Your task to perform on an android device: delete location history Image 0: 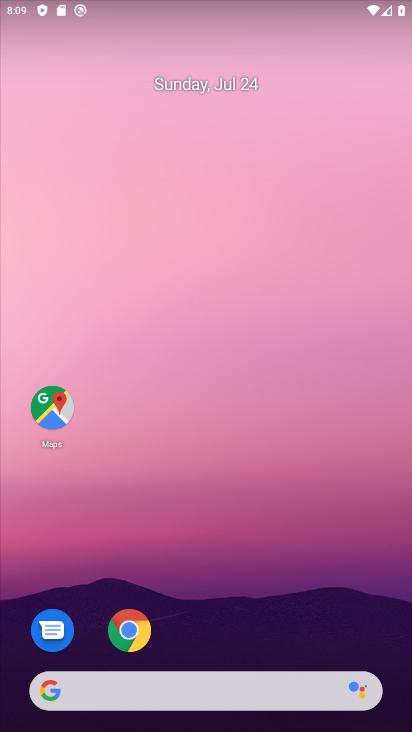
Step 0: drag from (223, 643) to (208, 25)
Your task to perform on an android device: delete location history Image 1: 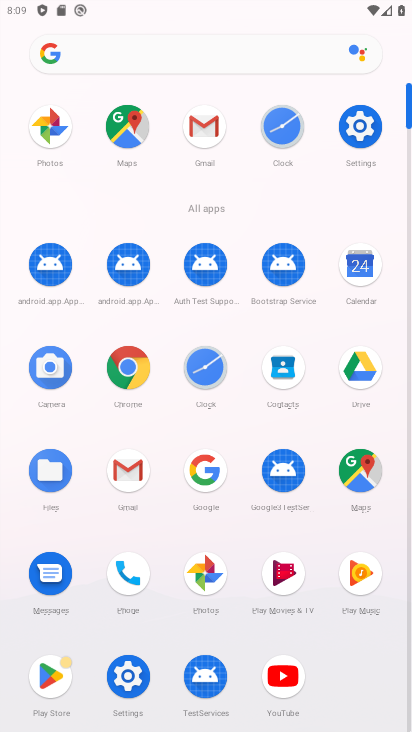
Step 1: click (359, 460)
Your task to perform on an android device: delete location history Image 2: 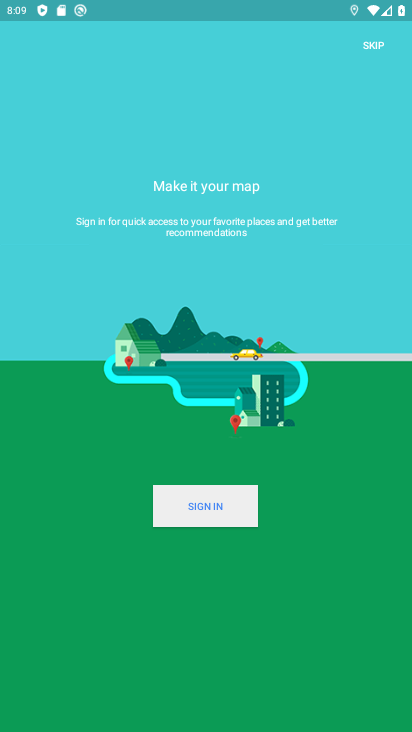
Step 2: click (231, 510)
Your task to perform on an android device: delete location history Image 3: 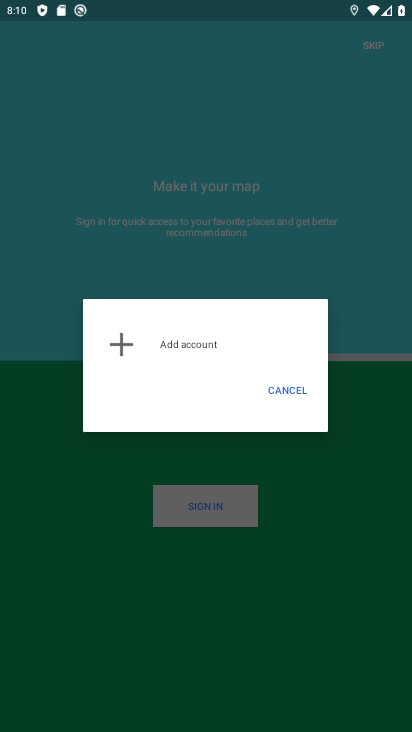
Step 3: task complete